Your task to perform on an android device: add a contact Image 0: 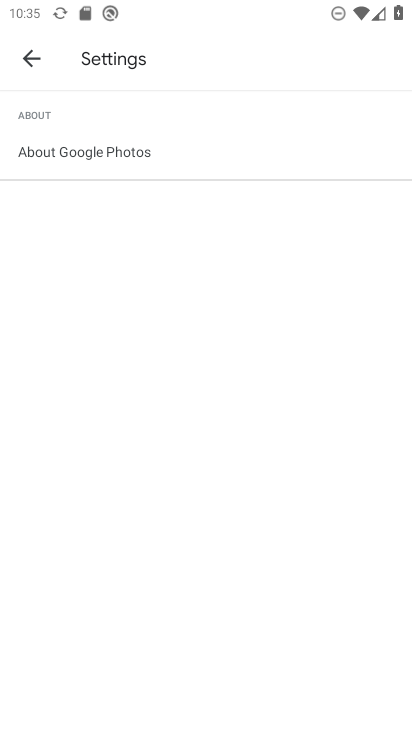
Step 0: press home button
Your task to perform on an android device: add a contact Image 1: 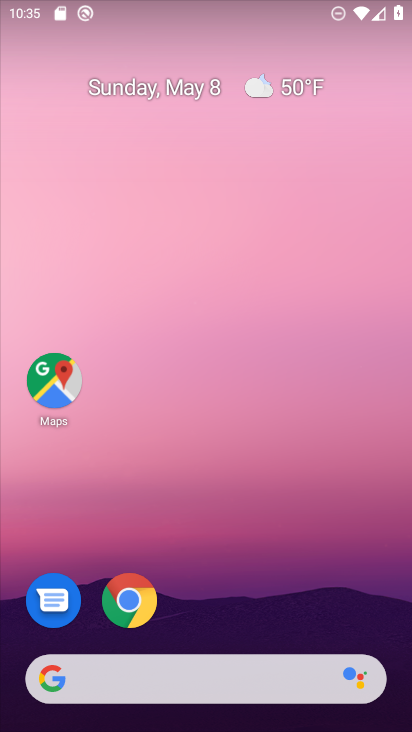
Step 1: drag from (205, 727) to (210, 217)
Your task to perform on an android device: add a contact Image 2: 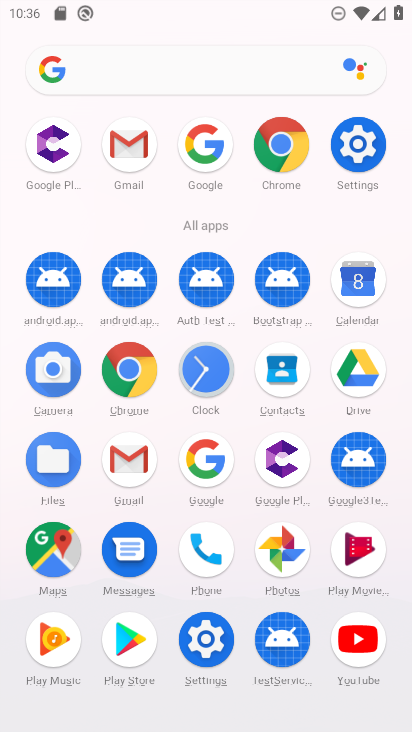
Step 2: click (282, 371)
Your task to perform on an android device: add a contact Image 3: 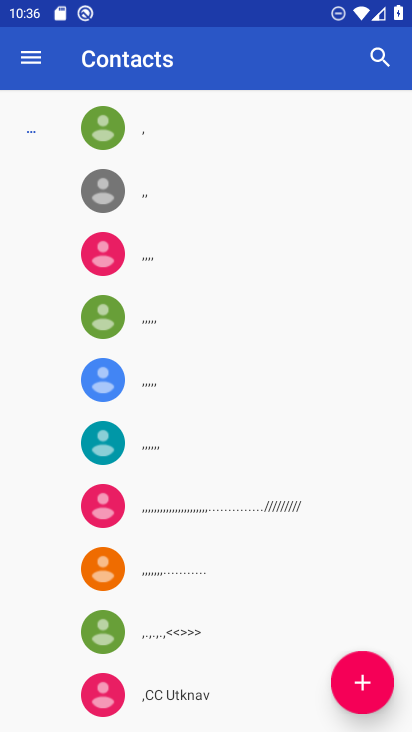
Step 3: task complete